Your task to perform on an android device: Go to calendar. Show me events next week Image 0: 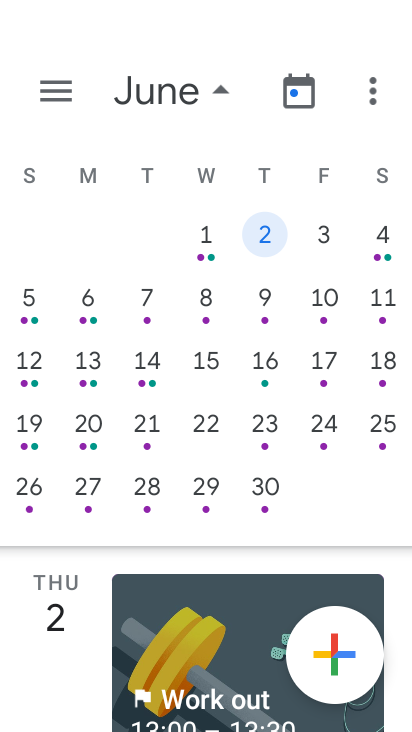
Step 0: drag from (10, 205) to (411, 202)
Your task to perform on an android device: Go to calendar. Show me events next week Image 1: 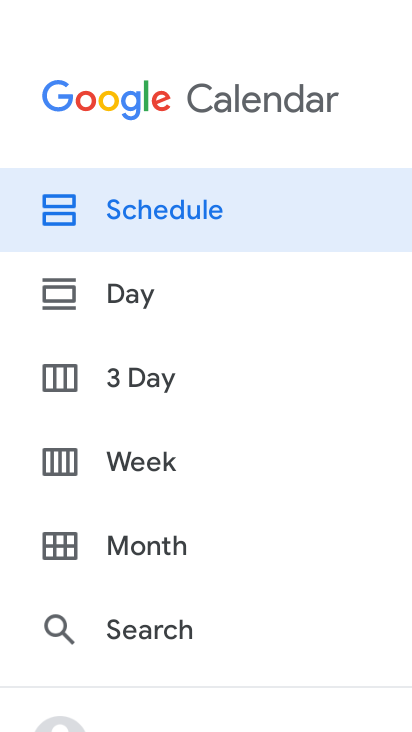
Step 1: drag from (362, 206) to (5, 174)
Your task to perform on an android device: Go to calendar. Show me events next week Image 2: 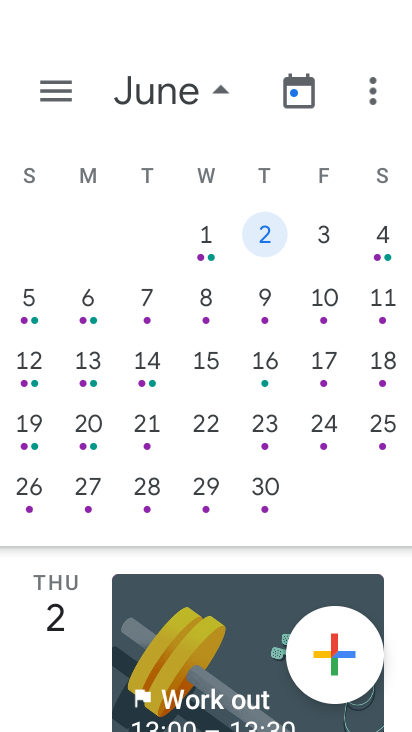
Step 2: drag from (37, 199) to (404, 197)
Your task to perform on an android device: Go to calendar. Show me events next week Image 3: 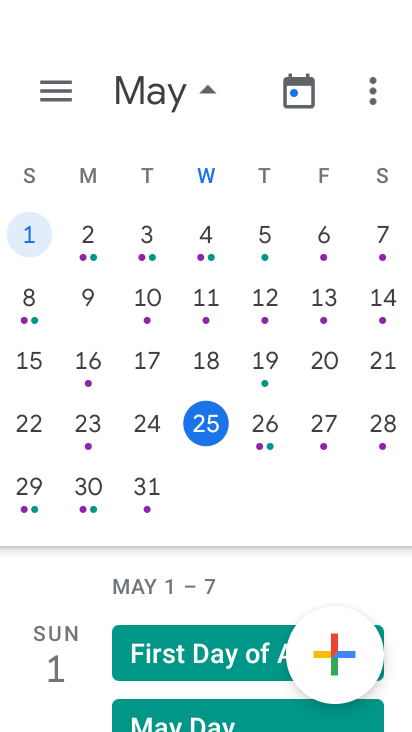
Step 3: click (90, 492)
Your task to perform on an android device: Go to calendar. Show me events next week Image 4: 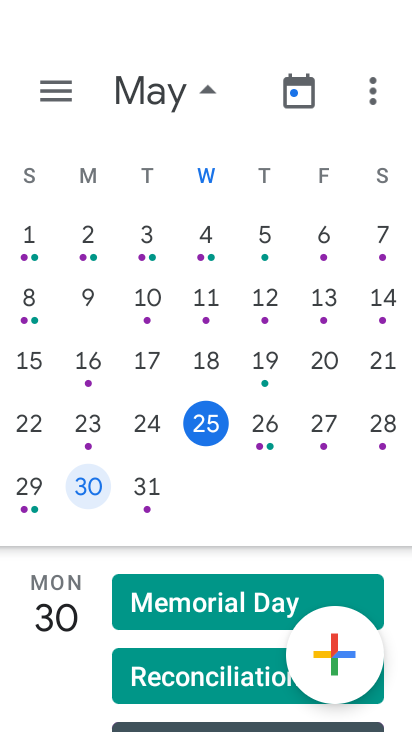
Step 4: task complete